Your task to perform on an android device: add a label to a message in the gmail app Image 0: 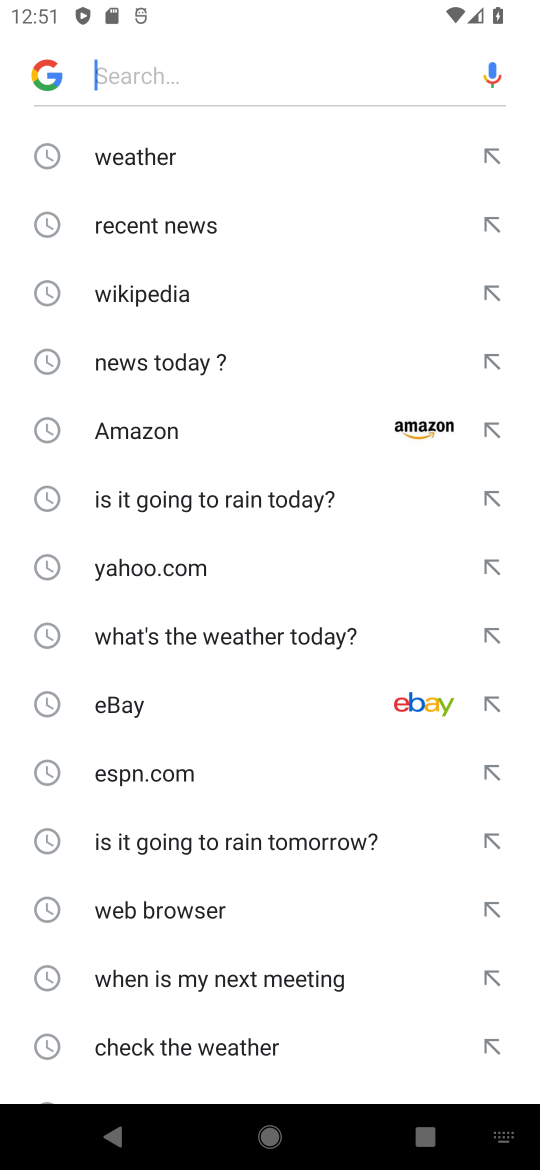
Step 0: press back button
Your task to perform on an android device: add a label to a message in the gmail app Image 1: 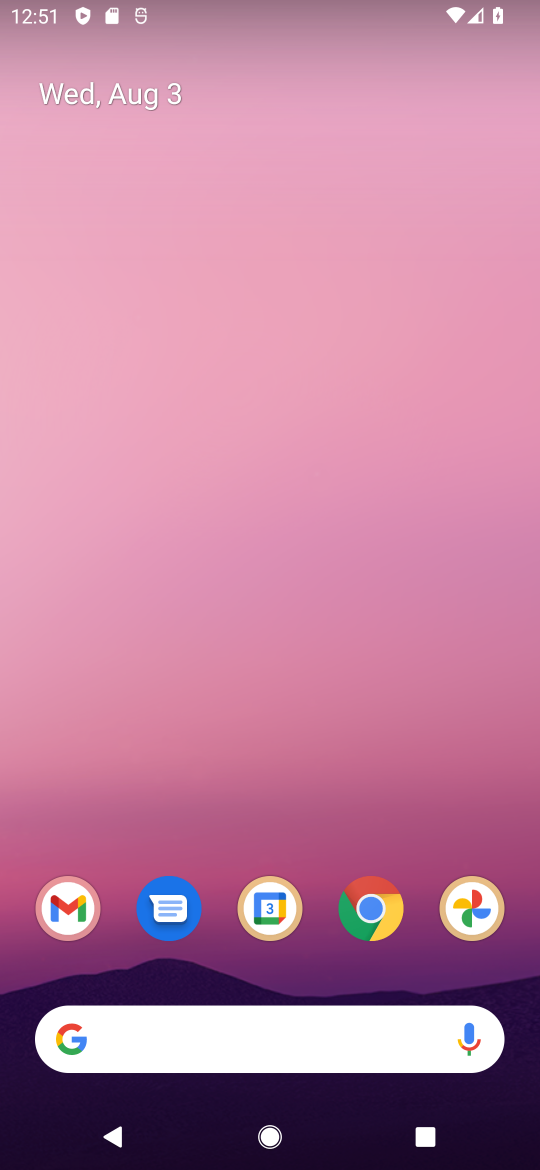
Step 1: click (369, 908)
Your task to perform on an android device: add a label to a message in the gmail app Image 2: 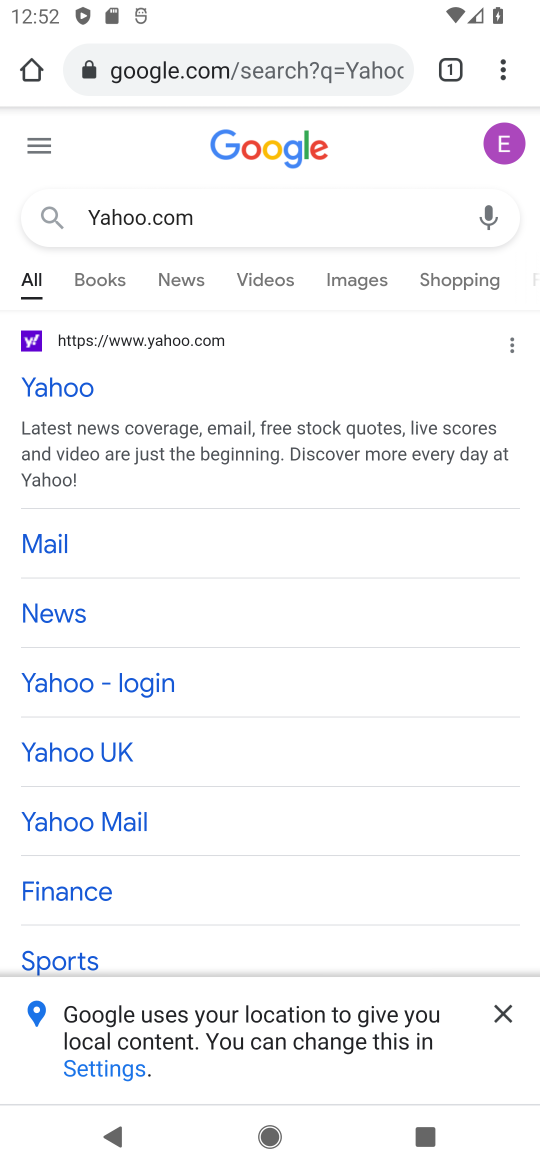
Step 2: press home button
Your task to perform on an android device: add a label to a message in the gmail app Image 3: 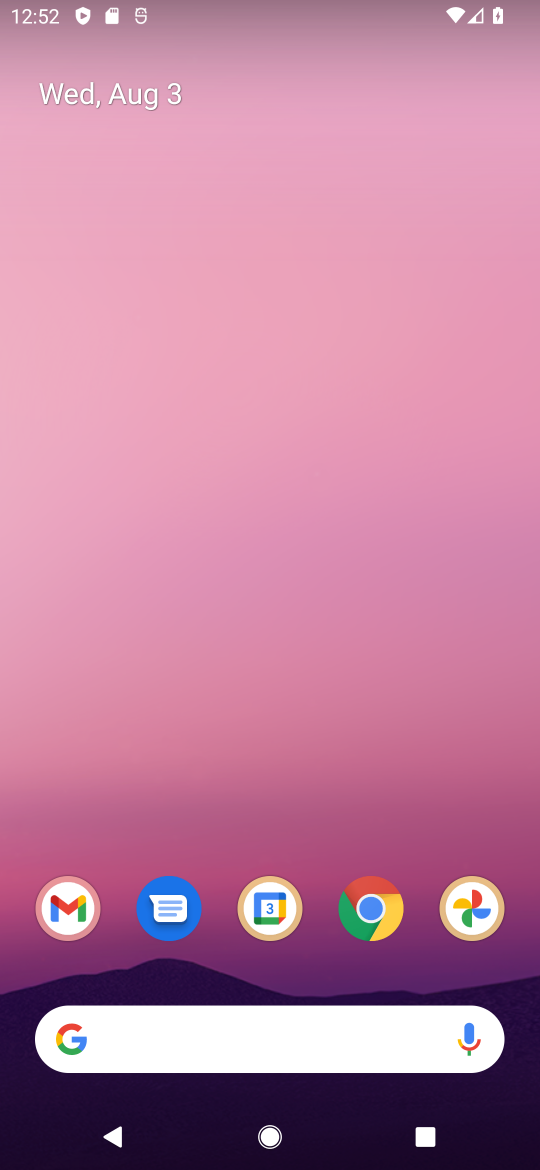
Step 3: drag from (213, 734) to (264, 108)
Your task to perform on an android device: add a label to a message in the gmail app Image 4: 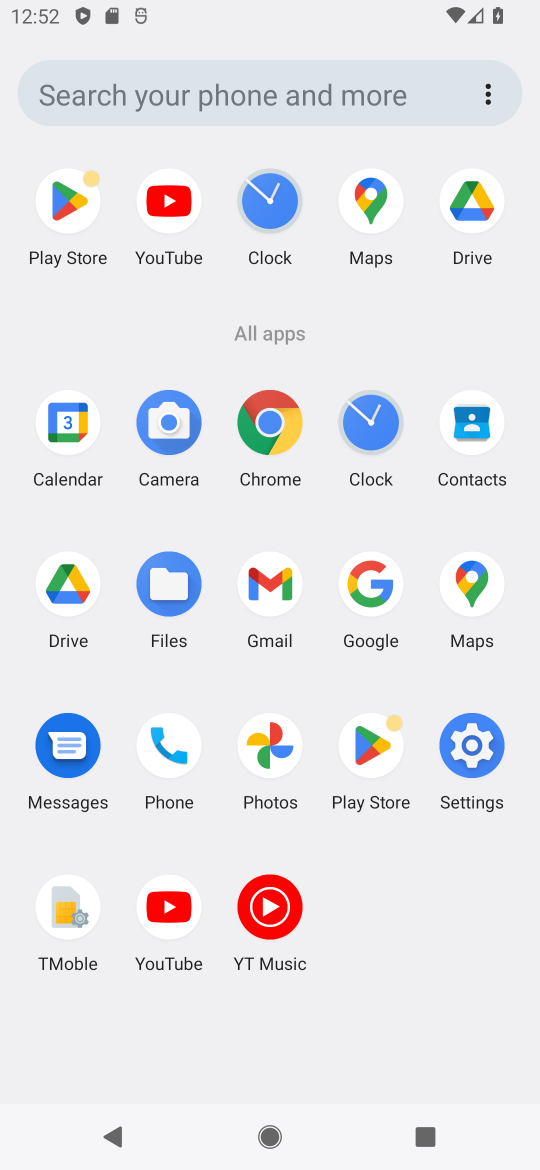
Step 4: click (261, 579)
Your task to perform on an android device: add a label to a message in the gmail app Image 5: 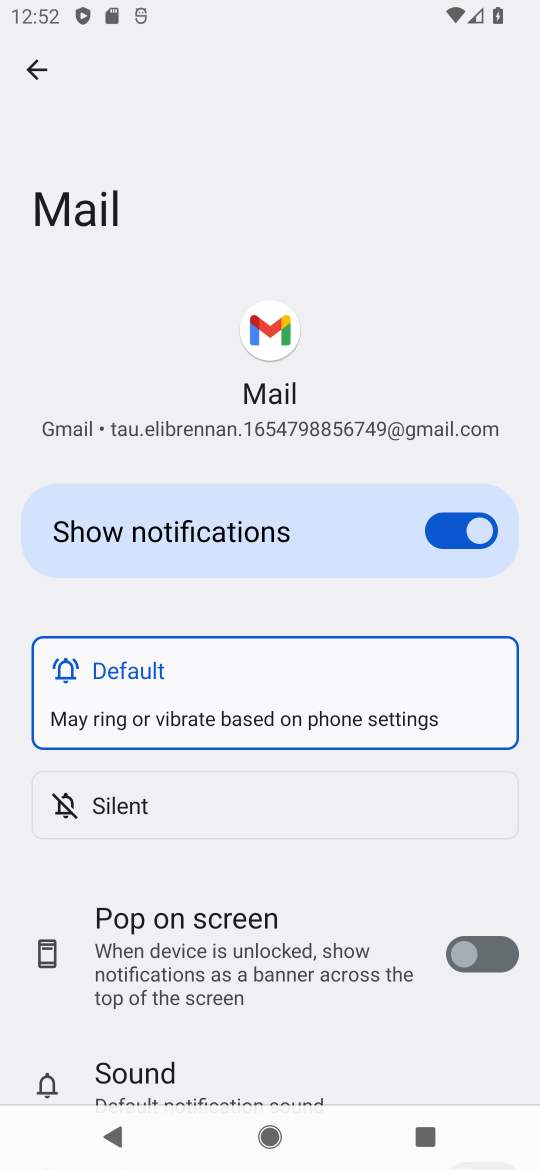
Step 5: click (25, 70)
Your task to perform on an android device: add a label to a message in the gmail app Image 6: 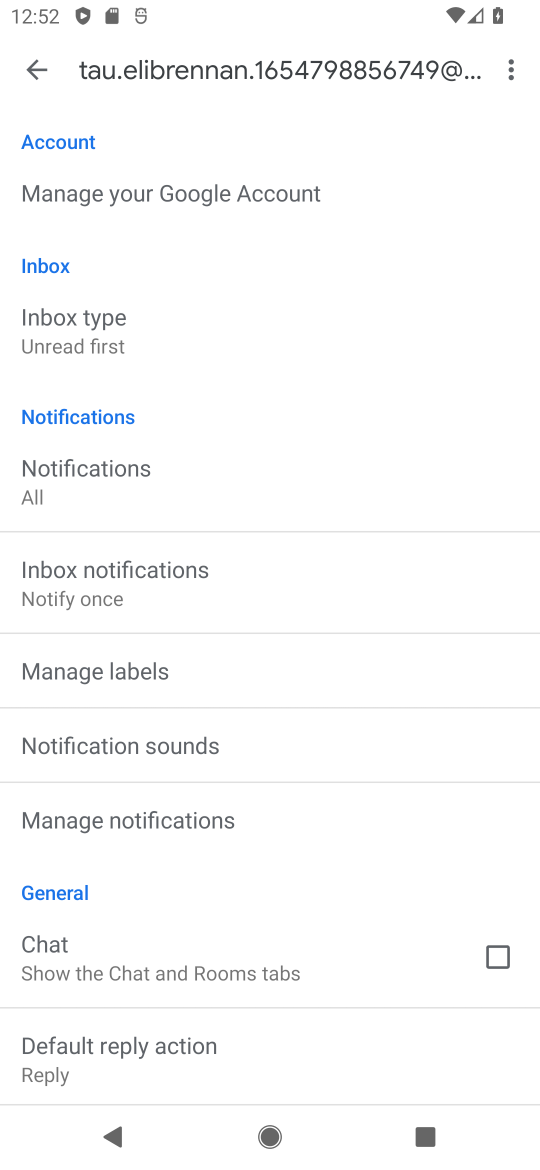
Step 6: click (25, 70)
Your task to perform on an android device: add a label to a message in the gmail app Image 7: 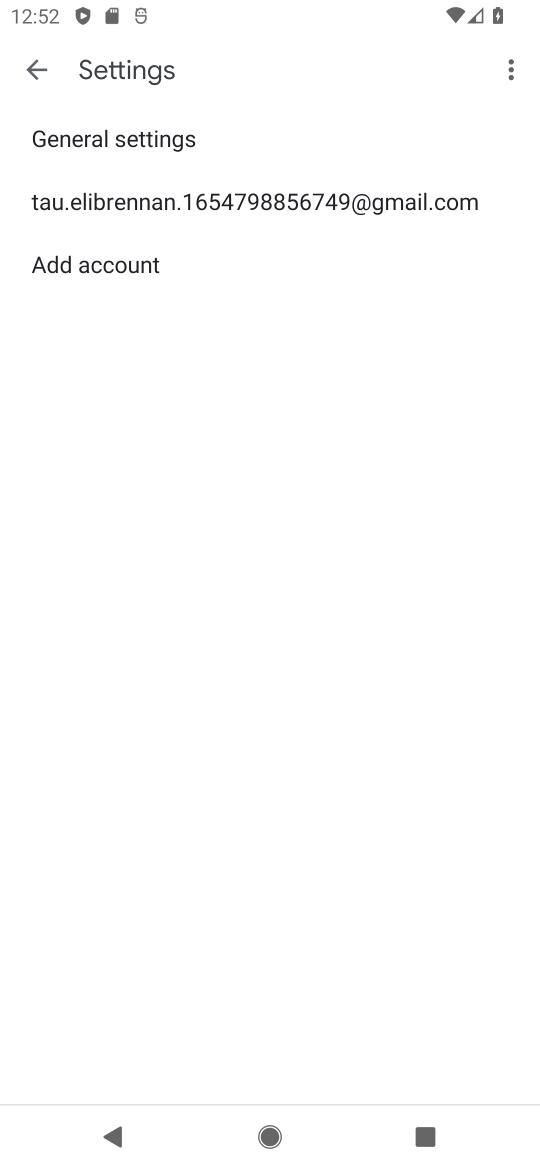
Step 7: click (25, 70)
Your task to perform on an android device: add a label to a message in the gmail app Image 8: 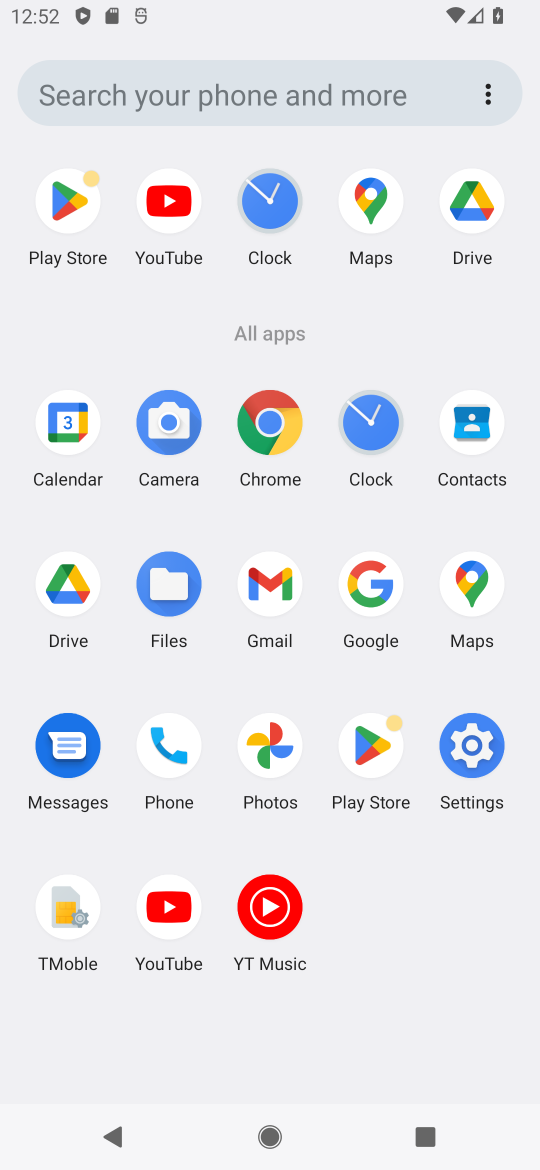
Step 8: click (272, 617)
Your task to perform on an android device: add a label to a message in the gmail app Image 9: 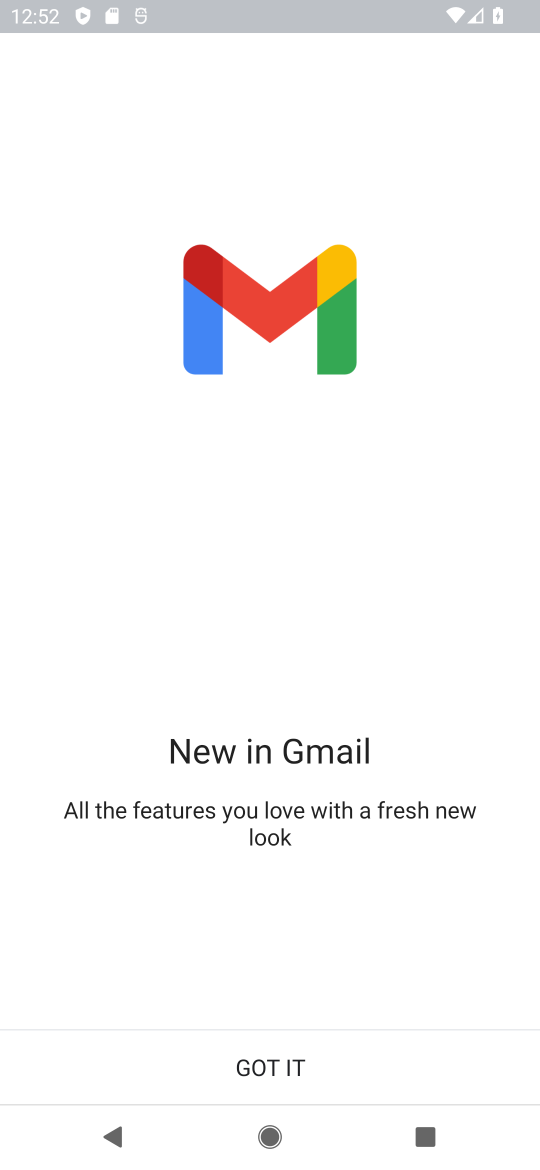
Step 9: click (273, 1083)
Your task to perform on an android device: add a label to a message in the gmail app Image 10: 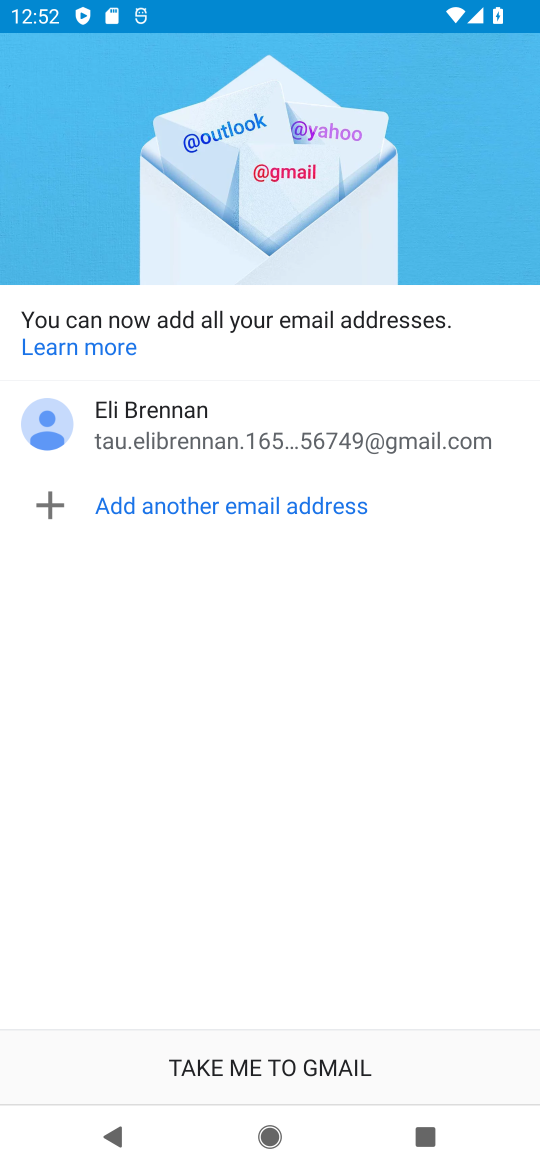
Step 10: click (273, 1071)
Your task to perform on an android device: add a label to a message in the gmail app Image 11: 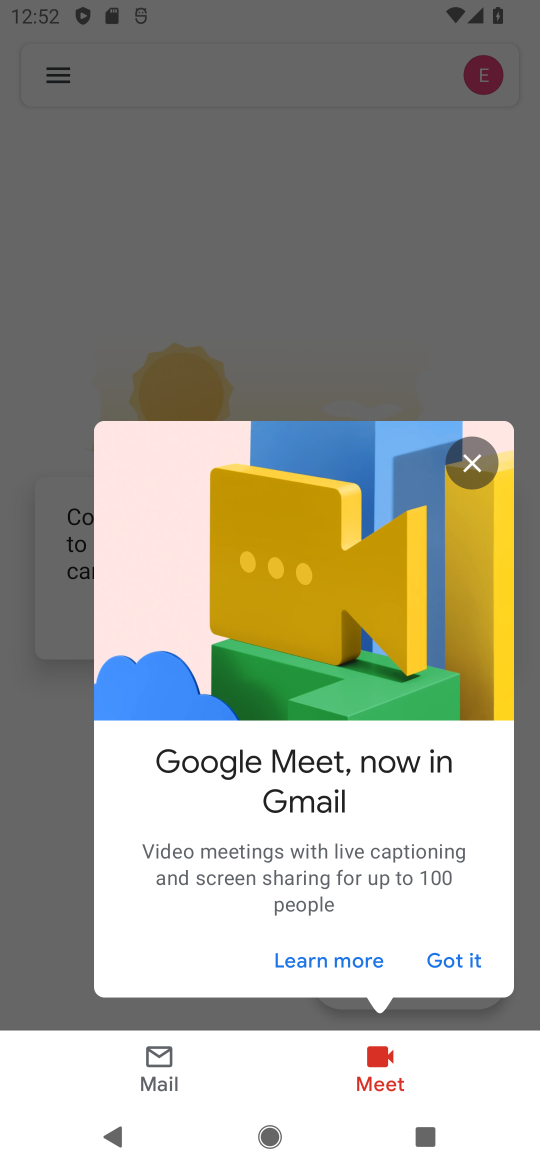
Step 11: click (444, 956)
Your task to perform on an android device: add a label to a message in the gmail app Image 12: 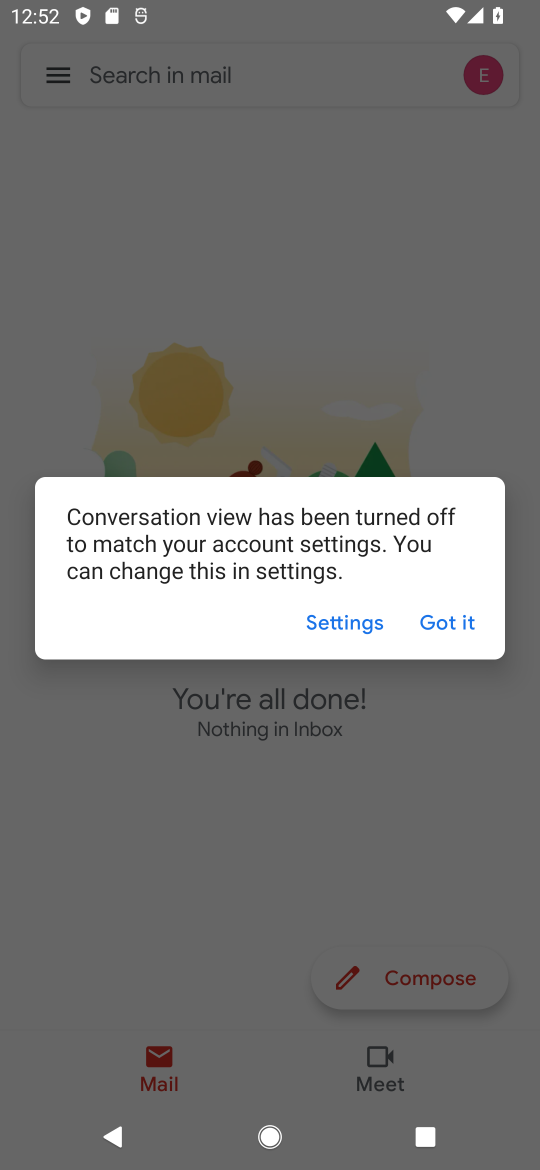
Step 12: click (454, 616)
Your task to perform on an android device: add a label to a message in the gmail app Image 13: 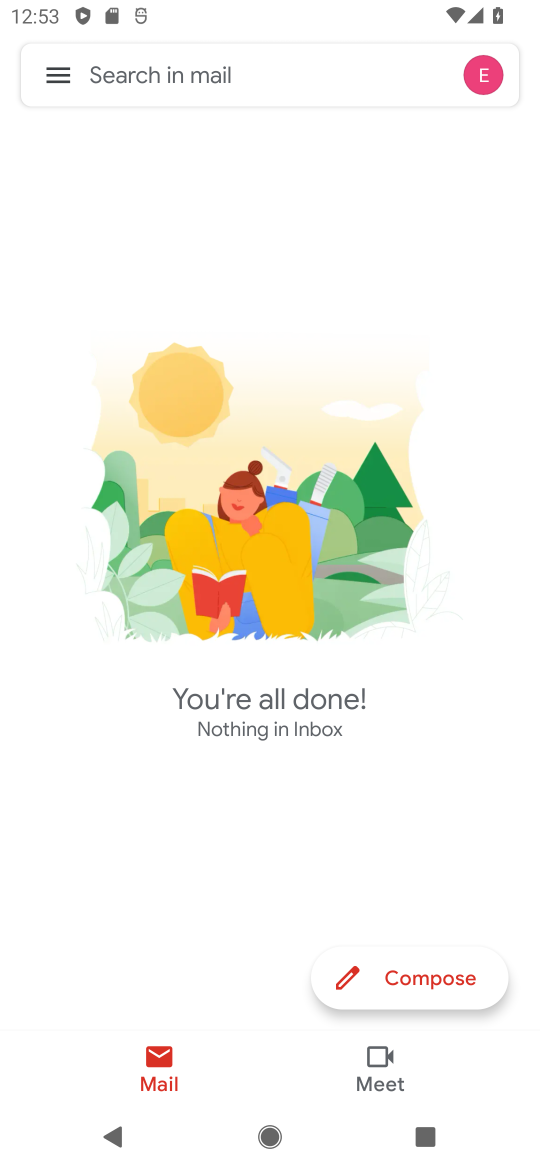
Step 13: click (55, 81)
Your task to perform on an android device: add a label to a message in the gmail app Image 14: 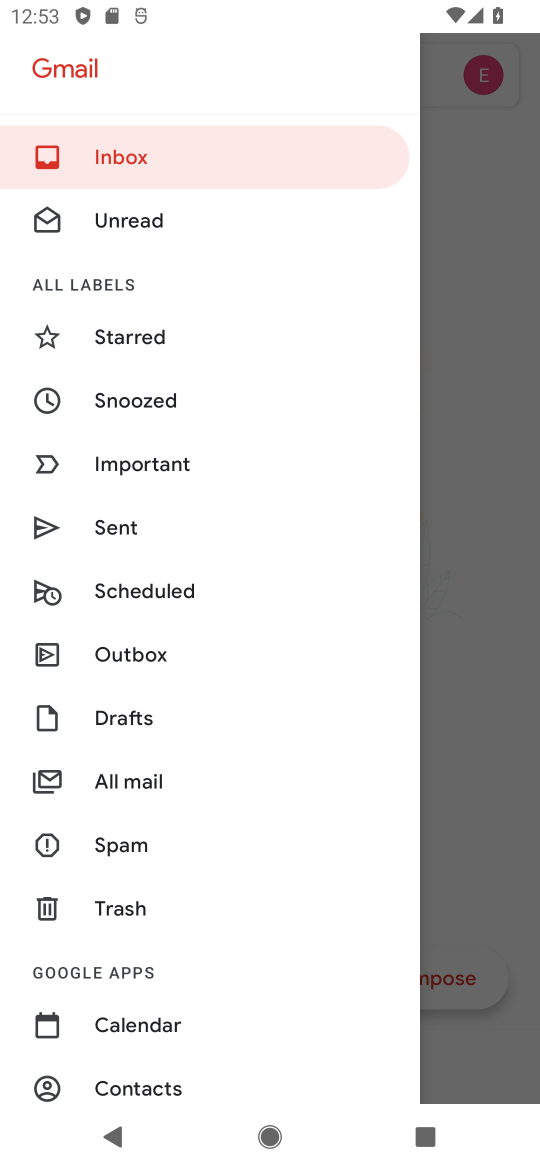
Step 14: click (154, 770)
Your task to perform on an android device: add a label to a message in the gmail app Image 15: 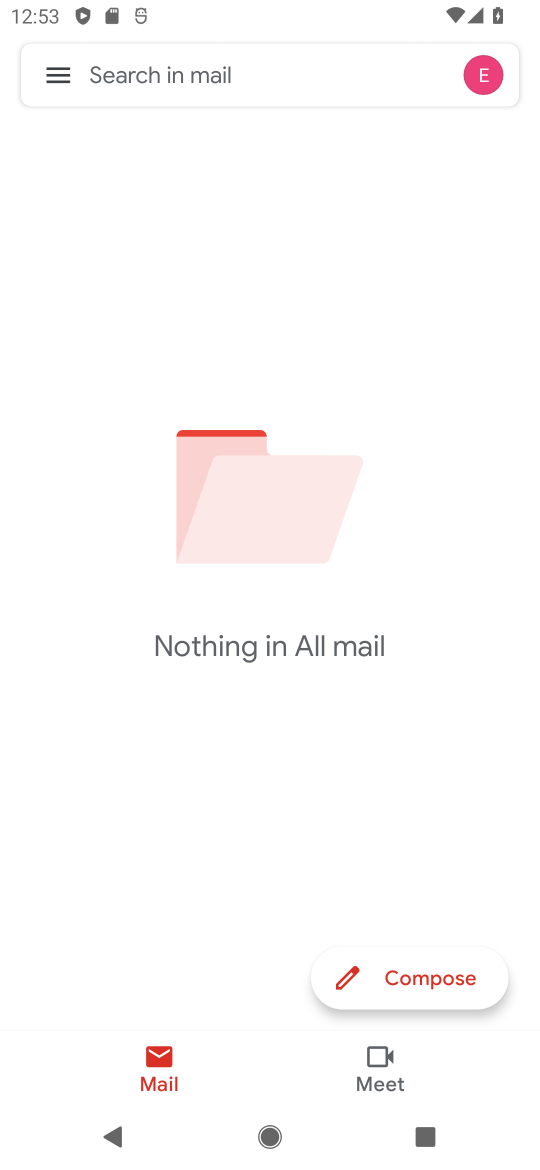
Step 15: task complete